Your task to perform on an android device: Clear all items from cart on ebay. Search for razer huntsman on ebay, select the first entry, and add it to the cart. Image 0: 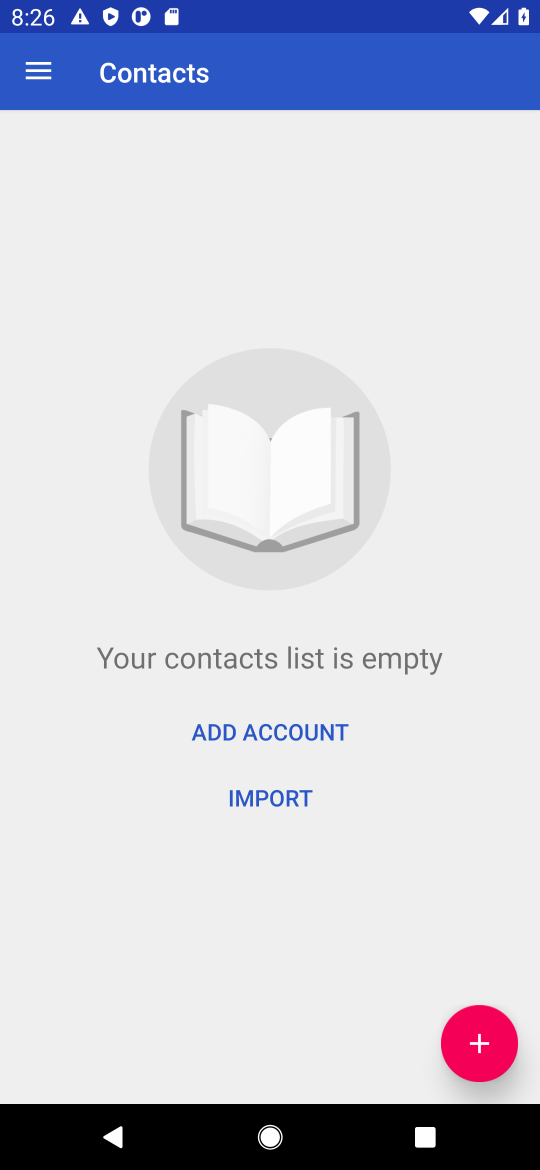
Step 0: press home button
Your task to perform on an android device: Clear all items from cart on ebay. Search for razer huntsman on ebay, select the first entry, and add it to the cart. Image 1: 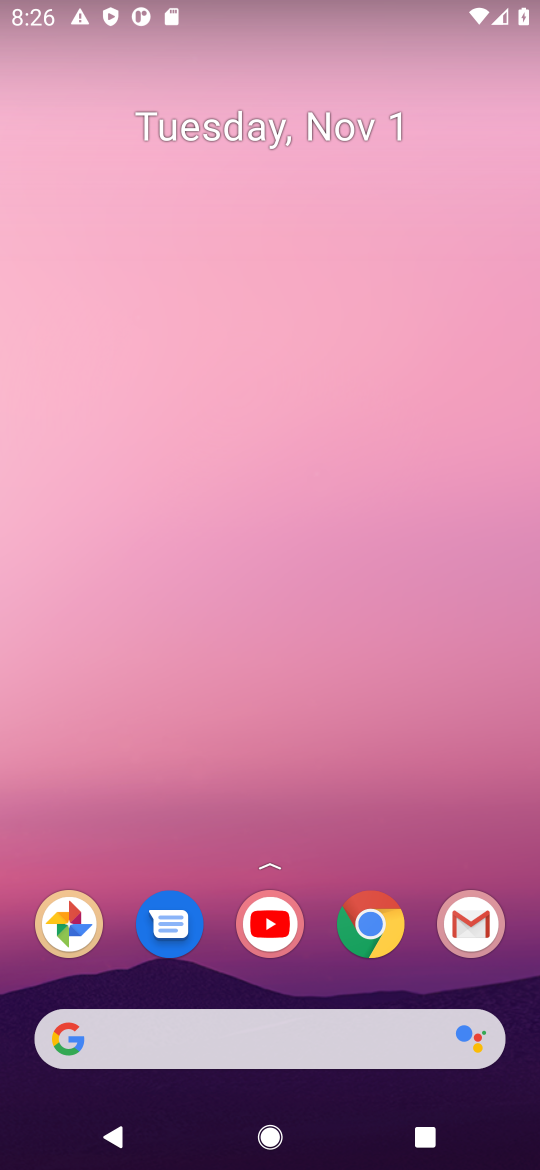
Step 1: click (128, 1029)
Your task to perform on an android device: Clear all items from cart on ebay. Search for razer huntsman on ebay, select the first entry, and add it to the cart. Image 2: 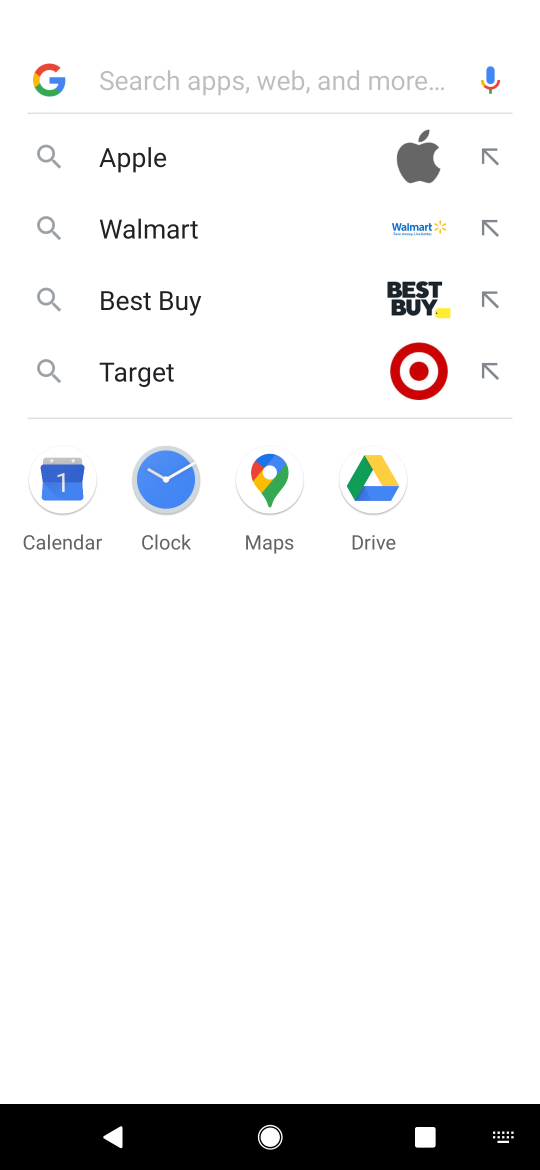
Step 2: press enter
Your task to perform on an android device: Clear all items from cart on ebay. Search for razer huntsman on ebay, select the first entry, and add it to the cart. Image 3: 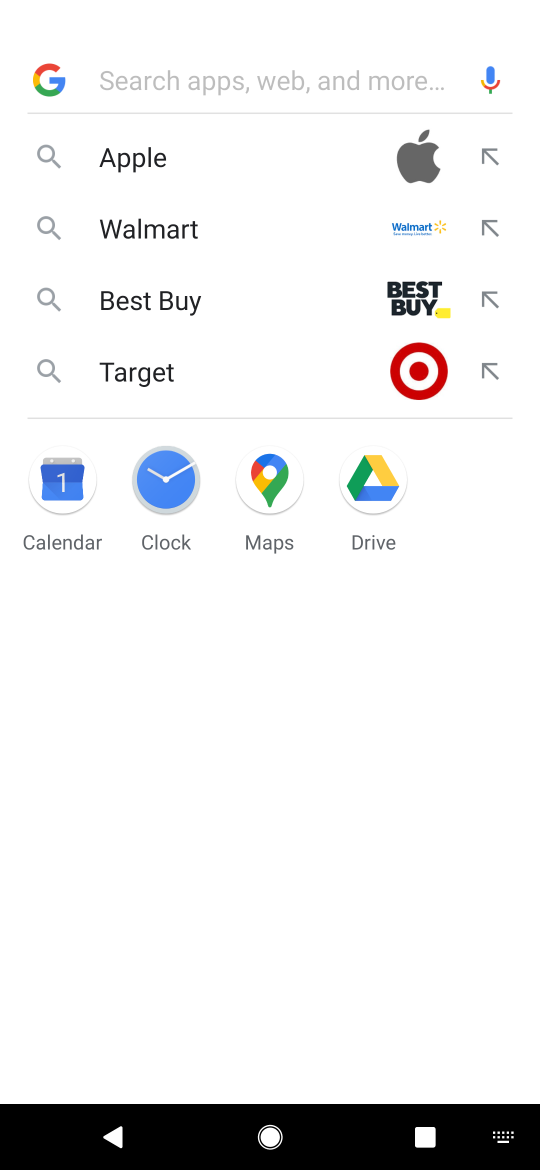
Step 3: type "ebay"
Your task to perform on an android device: Clear all items from cart on ebay. Search for razer huntsman on ebay, select the first entry, and add it to the cart. Image 4: 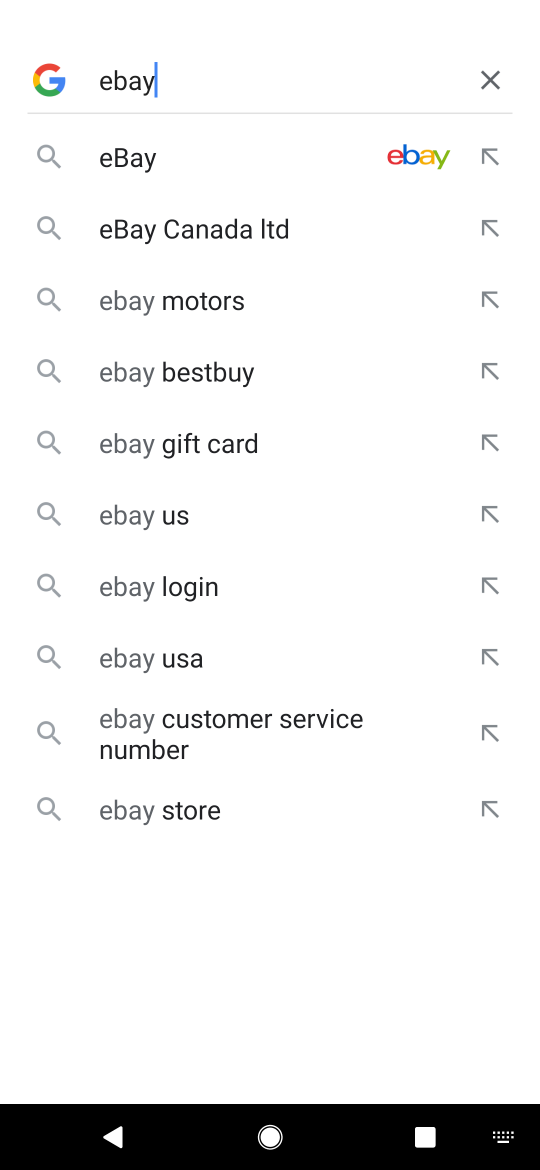
Step 4: press enter
Your task to perform on an android device: Clear all items from cart on ebay. Search for razer huntsman on ebay, select the first entry, and add it to the cart. Image 5: 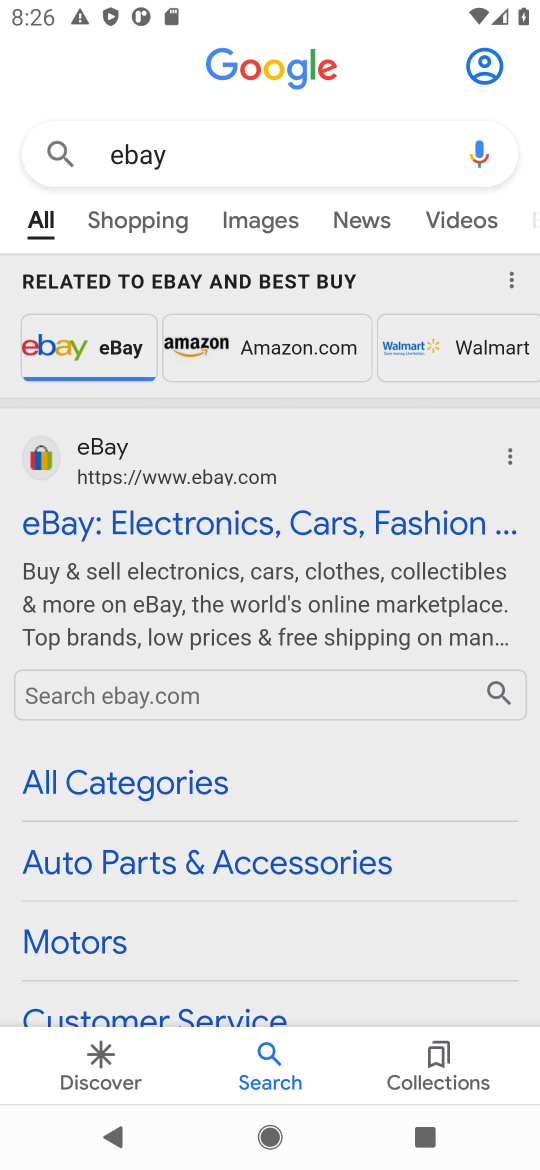
Step 5: click (248, 524)
Your task to perform on an android device: Clear all items from cart on ebay. Search for razer huntsman on ebay, select the first entry, and add it to the cart. Image 6: 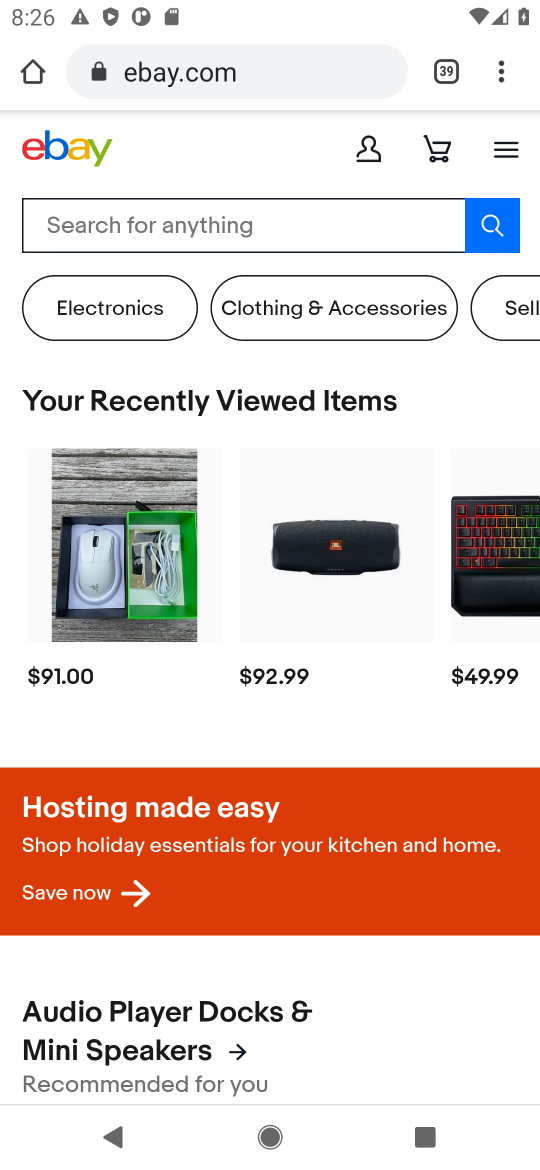
Step 6: click (440, 149)
Your task to perform on an android device: Clear all items from cart on ebay. Search for razer huntsman on ebay, select the first entry, and add it to the cart. Image 7: 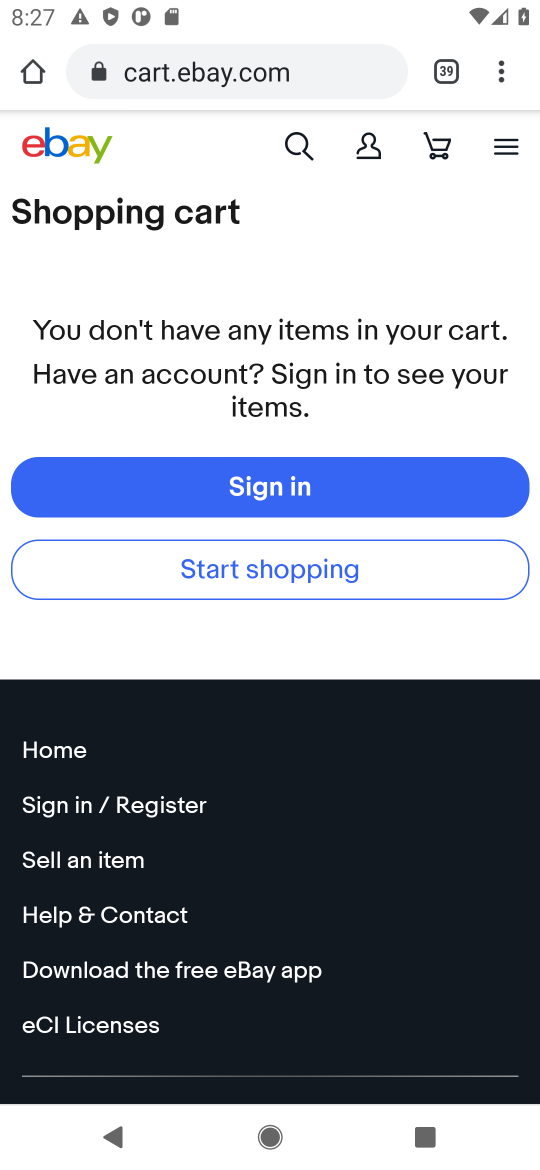
Step 7: click (300, 147)
Your task to perform on an android device: Clear all items from cart on ebay. Search for razer huntsman on ebay, select the first entry, and add it to the cart. Image 8: 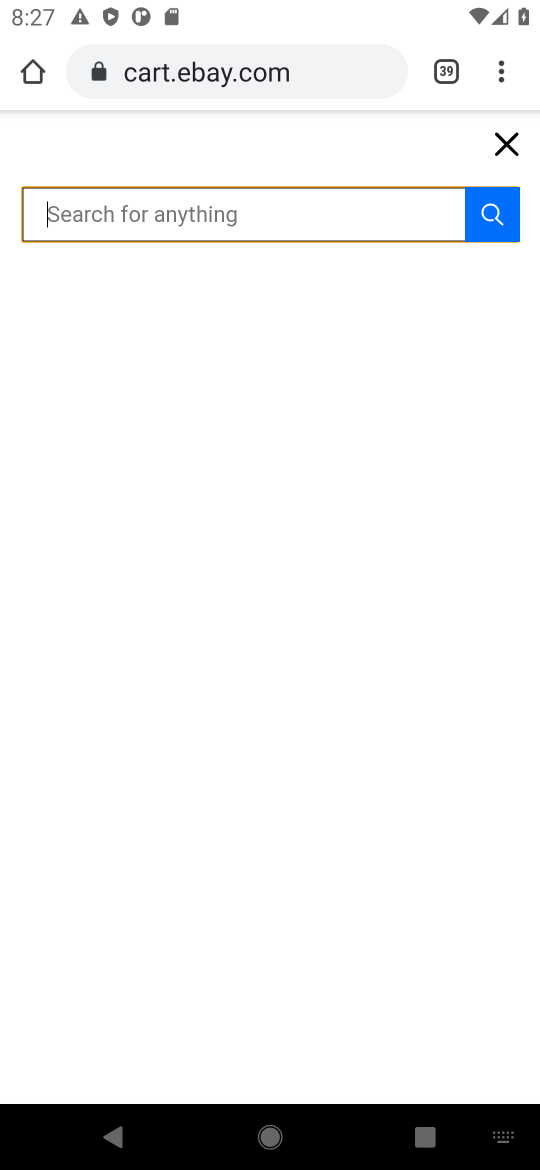
Step 8: click (197, 206)
Your task to perform on an android device: Clear all items from cart on ebay. Search for razer huntsman on ebay, select the first entry, and add it to the cart. Image 9: 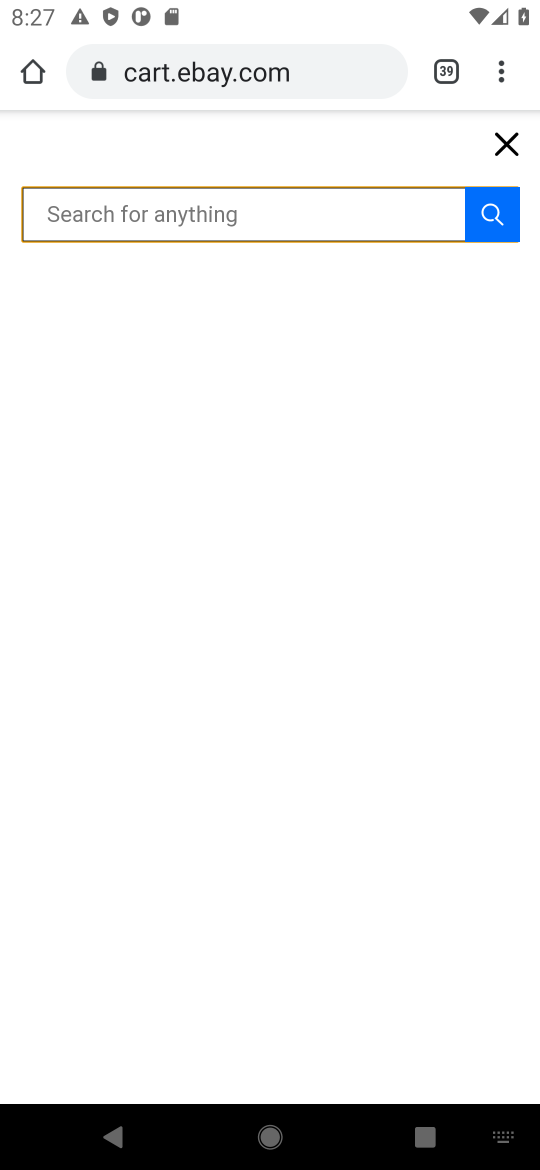
Step 9: type "razer huntsman"
Your task to perform on an android device: Clear all items from cart on ebay. Search for razer huntsman on ebay, select the first entry, and add it to the cart. Image 10: 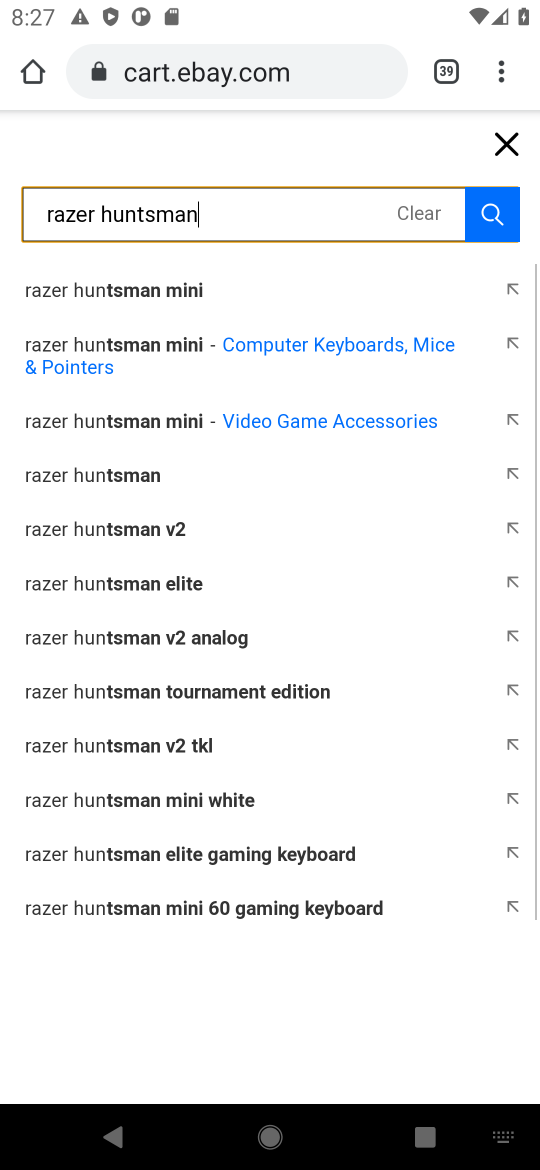
Step 10: press enter
Your task to perform on an android device: Clear all items from cart on ebay. Search for razer huntsman on ebay, select the first entry, and add it to the cart. Image 11: 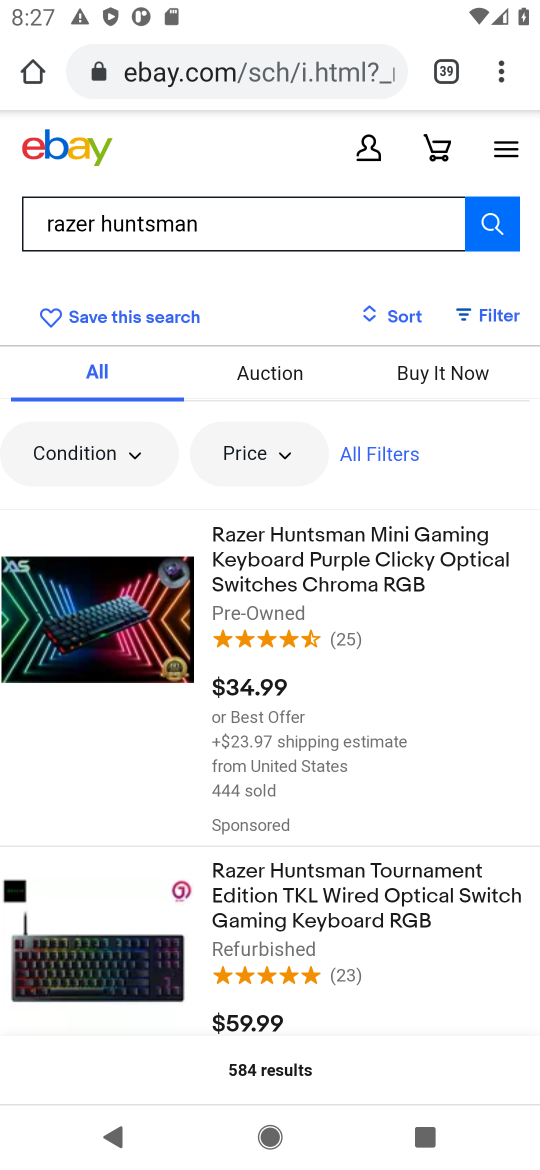
Step 11: click (331, 567)
Your task to perform on an android device: Clear all items from cart on ebay. Search for razer huntsman on ebay, select the first entry, and add it to the cart. Image 12: 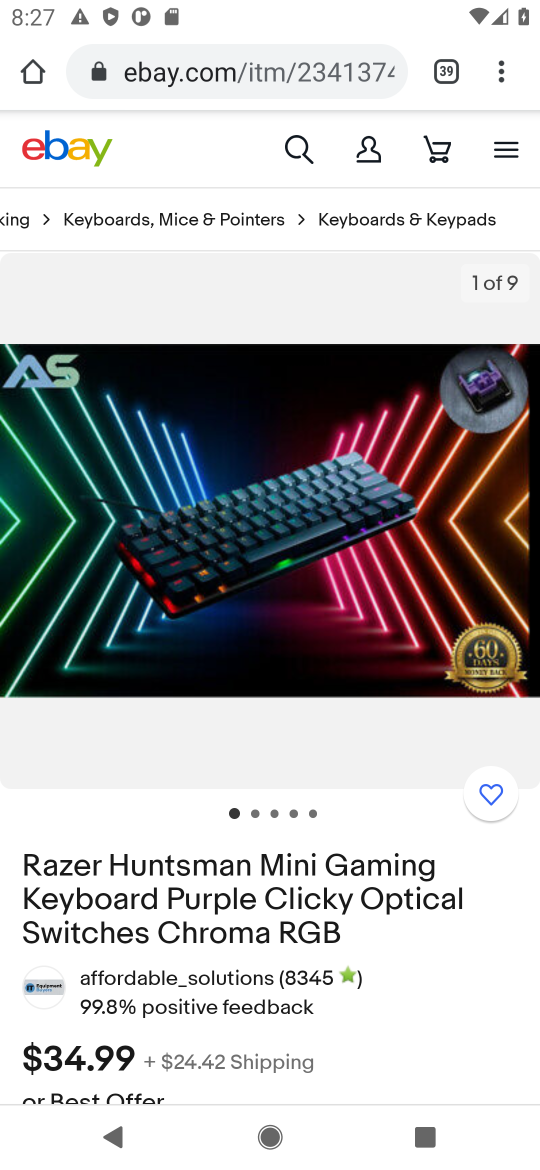
Step 12: drag from (343, 933) to (343, 451)
Your task to perform on an android device: Clear all items from cart on ebay. Search for razer huntsman on ebay, select the first entry, and add it to the cart. Image 13: 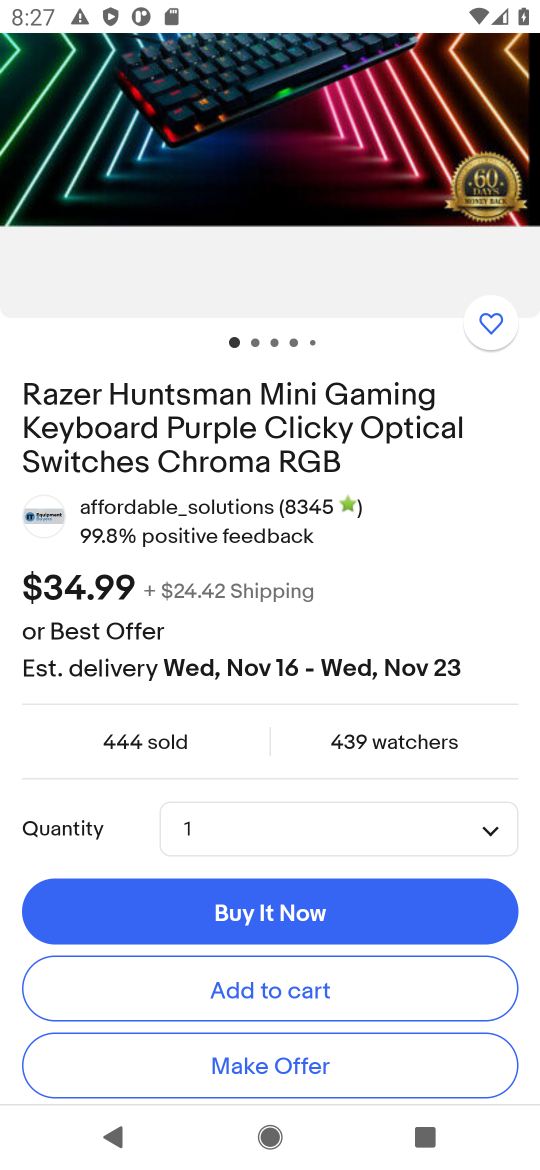
Step 13: drag from (355, 882) to (384, 399)
Your task to perform on an android device: Clear all items from cart on ebay. Search for razer huntsman on ebay, select the first entry, and add it to the cart. Image 14: 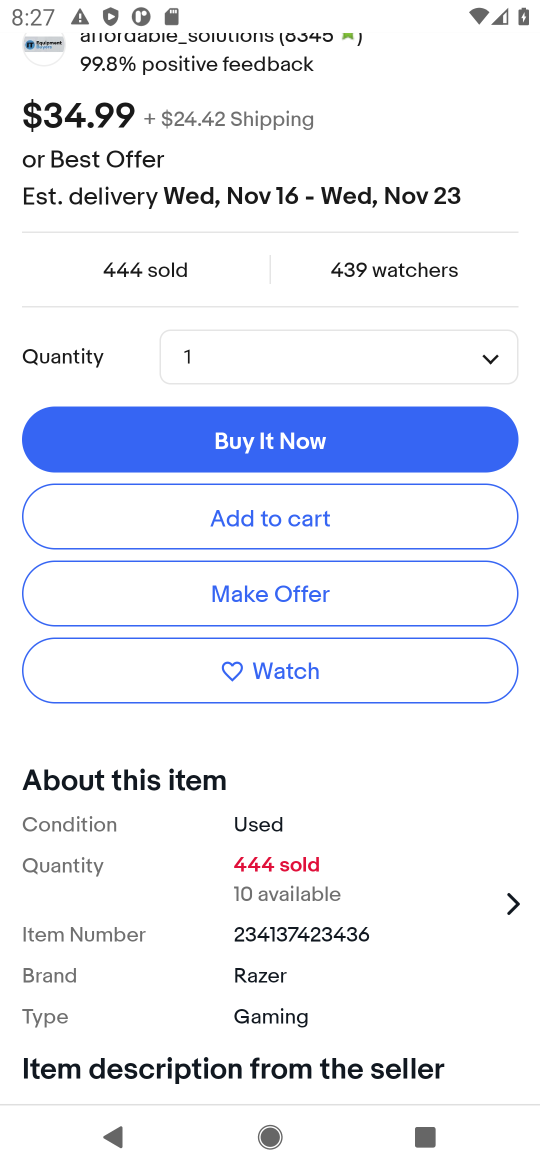
Step 14: click (241, 530)
Your task to perform on an android device: Clear all items from cart on ebay. Search for razer huntsman on ebay, select the first entry, and add it to the cart. Image 15: 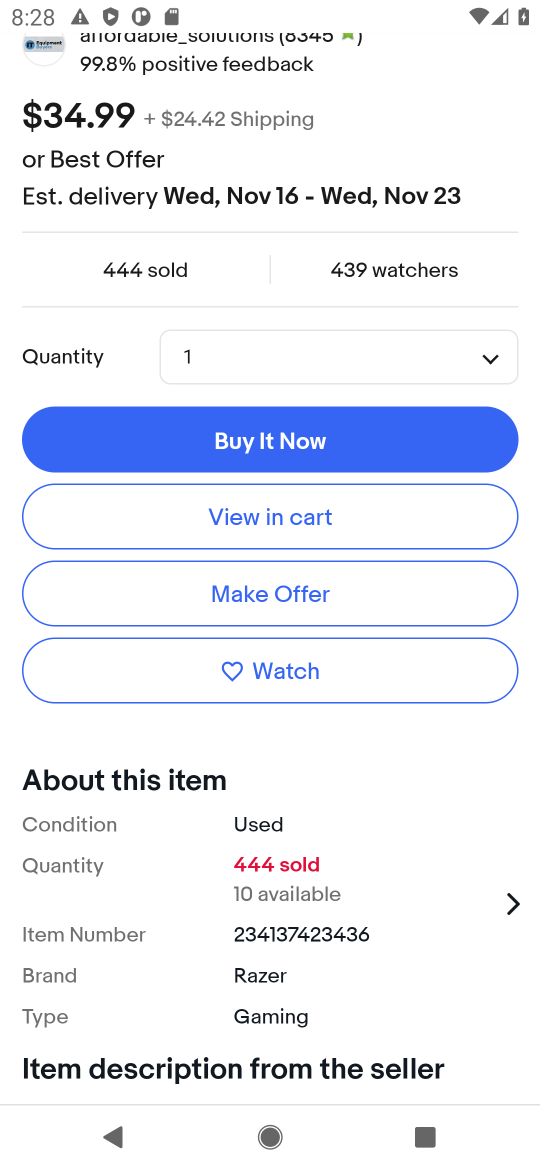
Step 15: task complete